Your task to perform on an android device: open the mobile data screen to see how much data has been used Image 0: 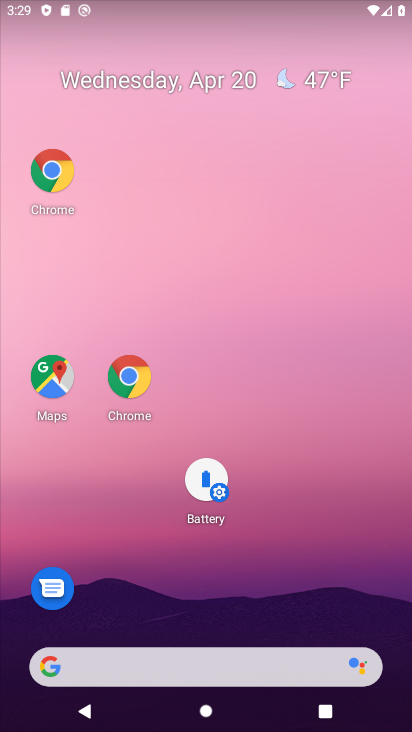
Step 0: drag from (283, 618) to (287, 104)
Your task to perform on an android device: open the mobile data screen to see how much data has been used Image 1: 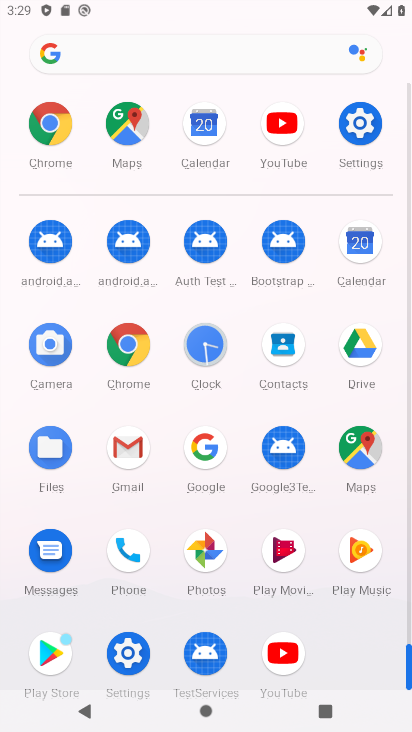
Step 1: click (134, 653)
Your task to perform on an android device: open the mobile data screen to see how much data has been used Image 2: 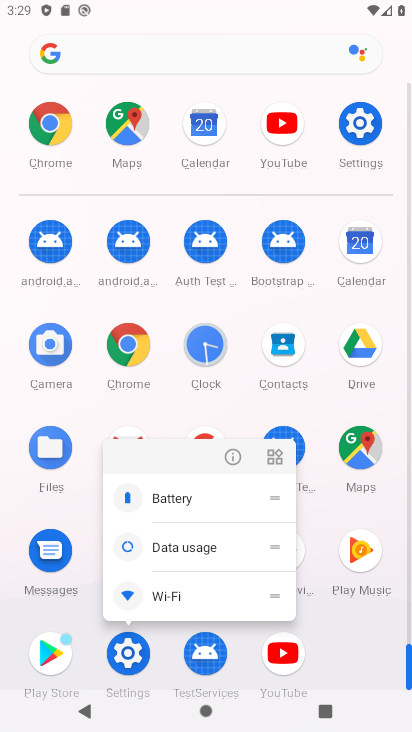
Step 2: click (137, 653)
Your task to perform on an android device: open the mobile data screen to see how much data has been used Image 3: 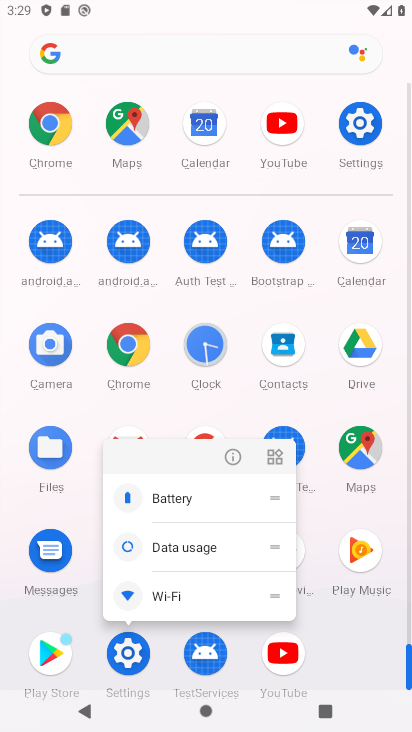
Step 3: click (137, 650)
Your task to perform on an android device: open the mobile data screen to see how much data has been used Image 4: 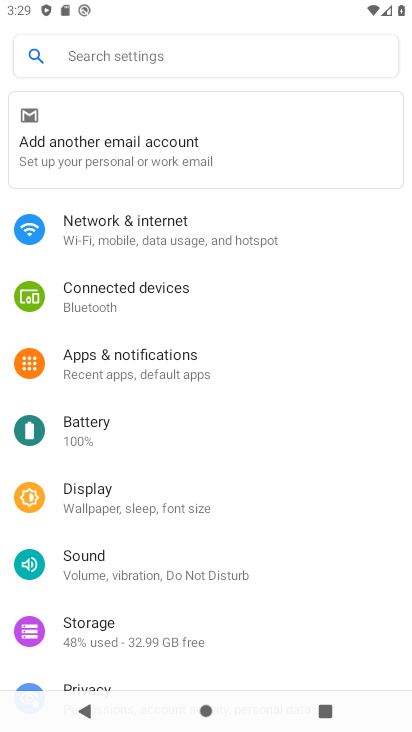
Step 4: drag from (152, 669) to (189, 160)
Your task to perform on an android device: open the mobile data screen to see how much data has been used Image 5: 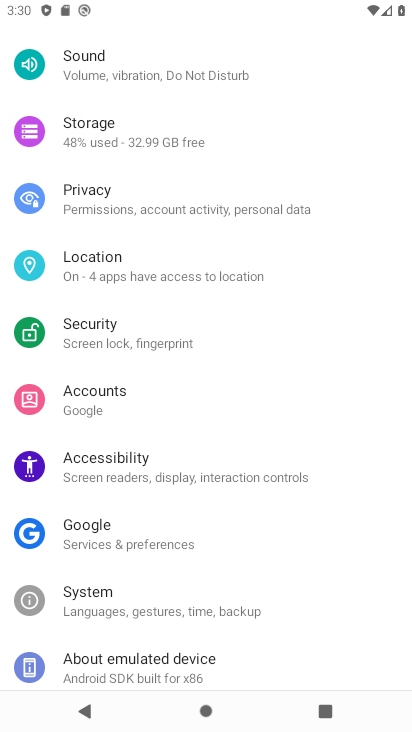
Step 5: drag from (188, 181) to (235, 630)
Your task to perform on an android device: open the mobile data screen to see how much data has been used Image 6: 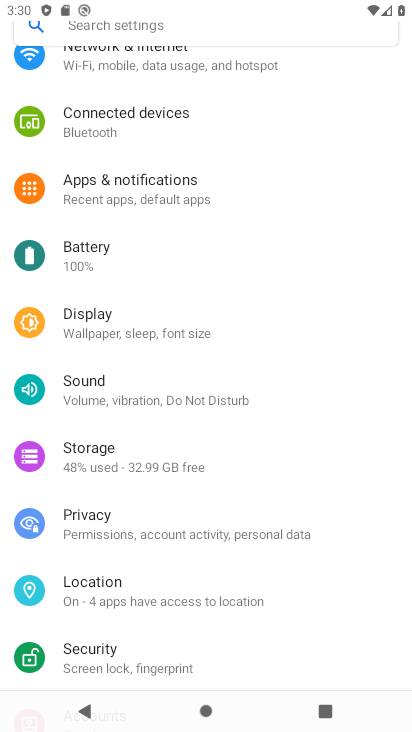
Step 6: drag from (326, 322) to (273, 631)
Your task to perform on an android device: open the mobile data screen to see how much data has been used Image 7: 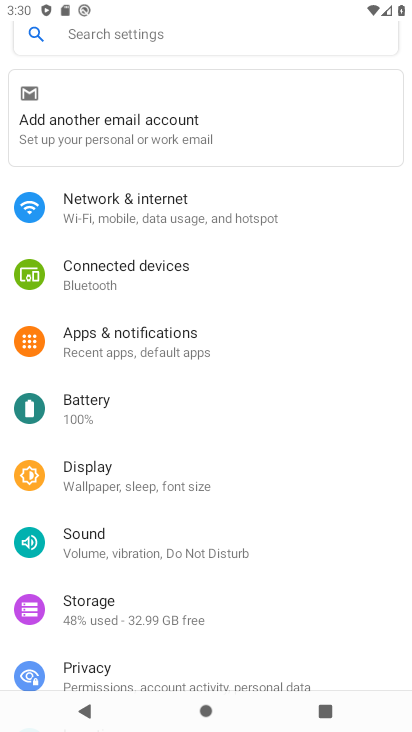
Step 7: click (216, 204)
Your task to perform on an android device: open the mobile data screen to see how much data has been used Image 8: 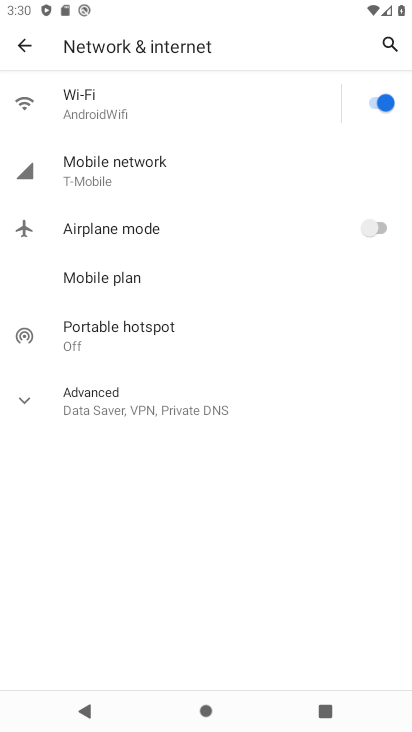
Step 8: click (131, 161)
Your task to perform on an android device: open the mobile data screen to see how much data has been used Image 9: 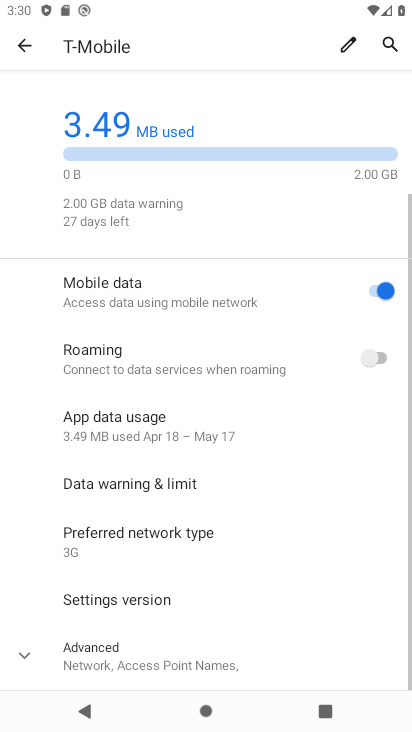
Step 9: drag from (269, 534) to (261, 306)
Your task to perform on an android device: open the mobile data screen to see how much data has been used Image 10: 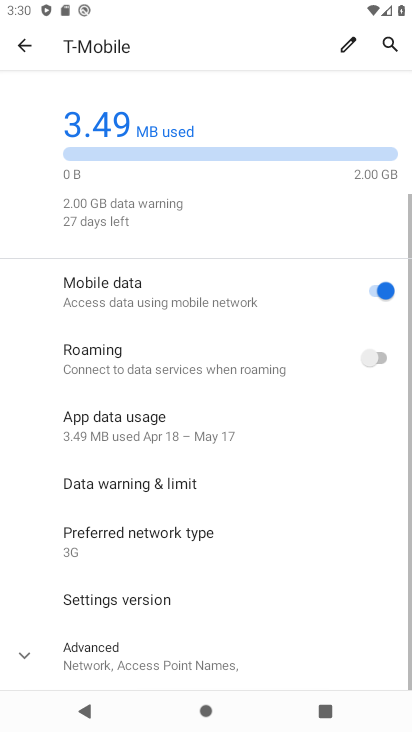
Step 10: click (190, 422)
Your task to perform on an android device: open the mobile data screen to see how much data has been used Image 11: 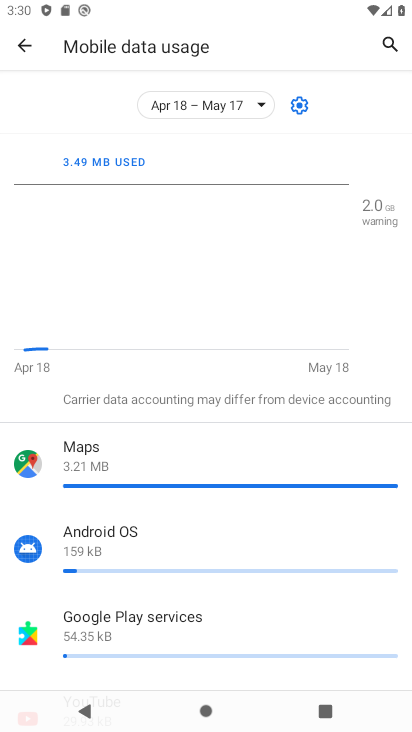
Step 11: task complete